Your task to perform on an android device: Open calendar and show me the first week of next month Image 0: 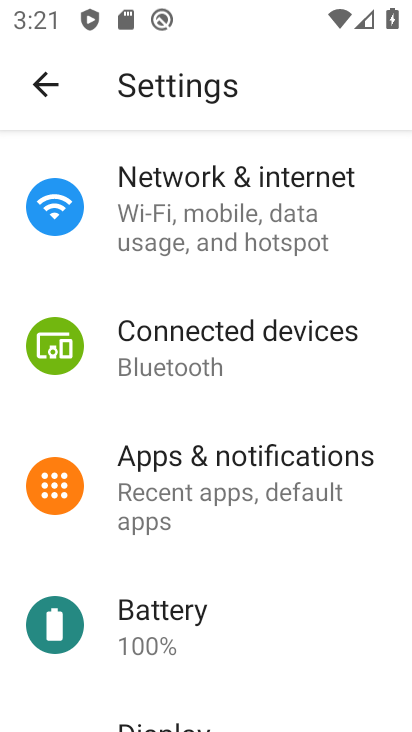
Step 0: press home button
Your task to perform on an android device: Open calendar and show me the first week of next month Image 1: 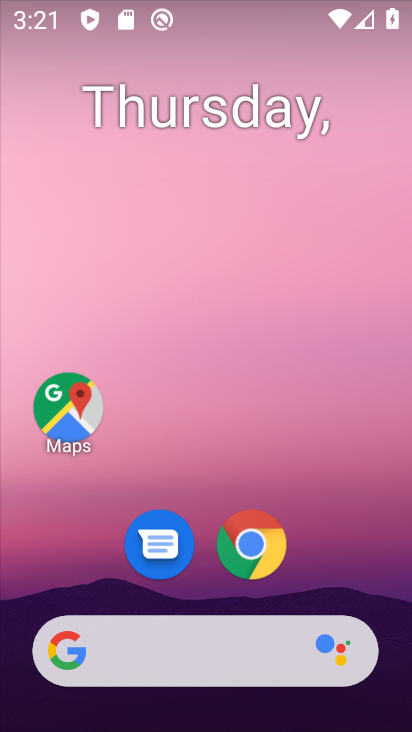
Step 1: drag from (350, 553) to (351, 24)
Your task to perform on an android device: Open calendar and show me the first week of next month Image 2: 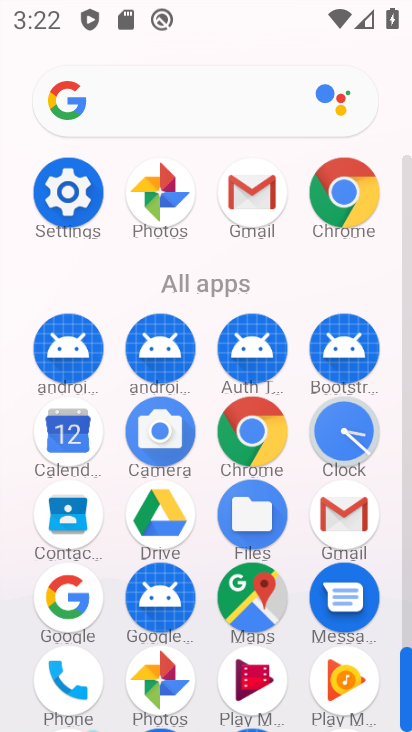
Step 2: click (77, 442)
Your task to perform on an android device: Open calendar and show me the first week of next month Image 3: 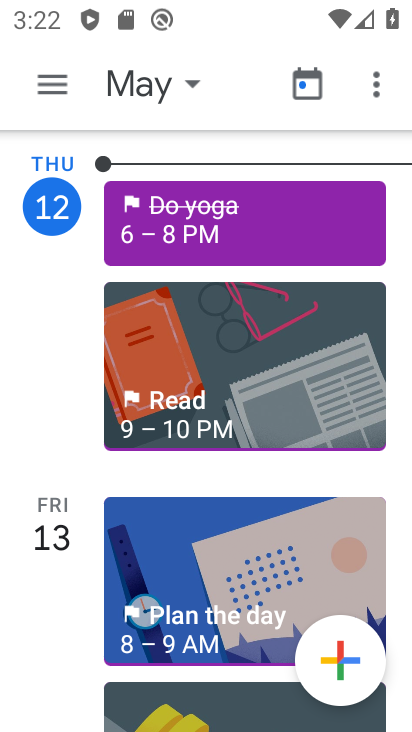
Step 3: click (58, 77)
Your task to perform on an android device: Open calendar and show me the first week of next month Image 4: 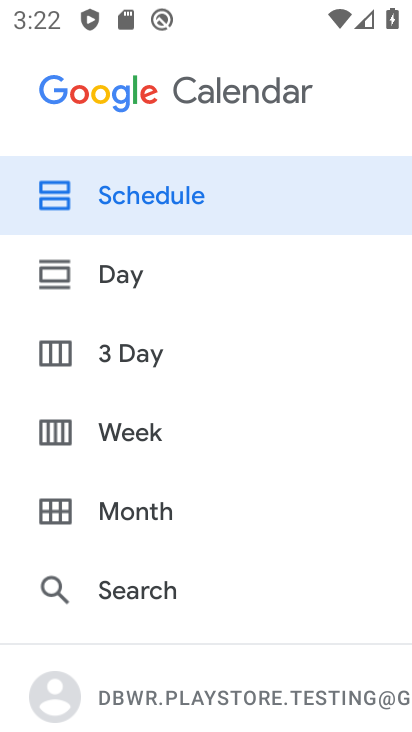
Step 4: click (152, 425)
Your task to perform on an android device: Open calendar and show me the first week of next month Image 5: 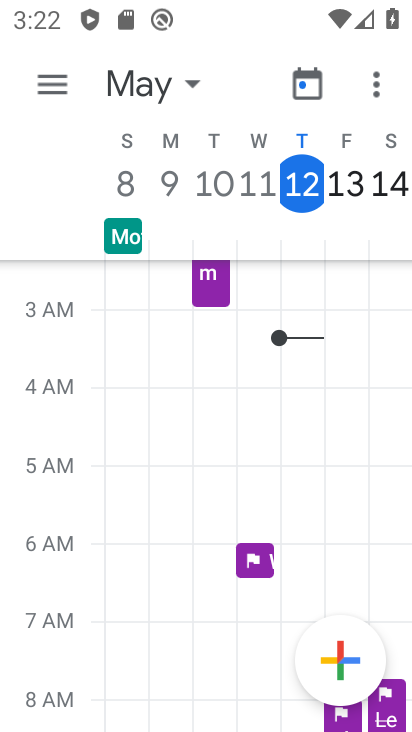
Step 5: click (134, 69)
Your task to perform on an android device: Open calendar and show me the first week of next month Image 6: 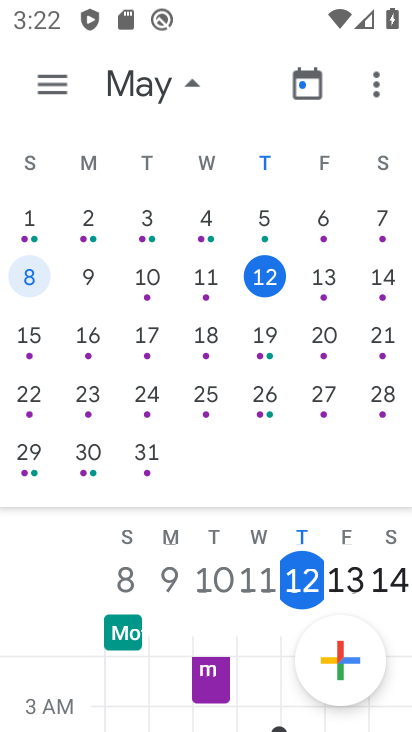
Step 6: drag from (316, 270) to (0, 257)
Your task to perform on an android device: Open calendar and show me the first week of next month Image 7: 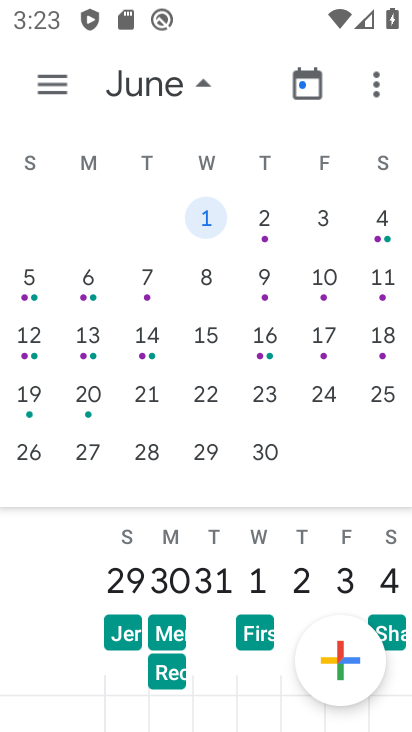
Step 7: click (328, 220)
Your task to perform on an android device: Open calendar and show me the first week of next month Image 8: 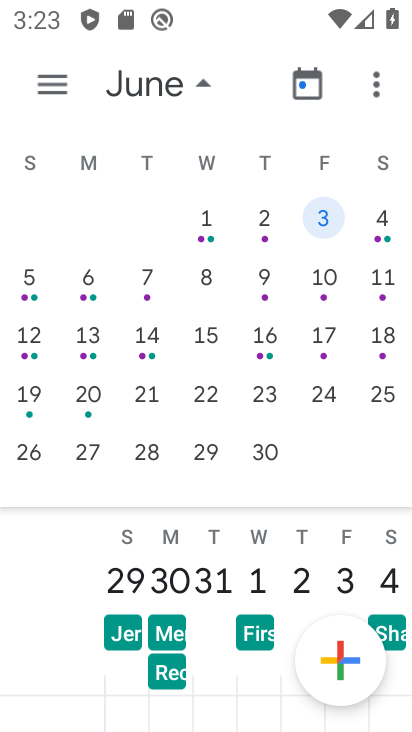
Step 8: task complete